Your task to perform on an android device: add a label to a message in the gmail app Image 0: 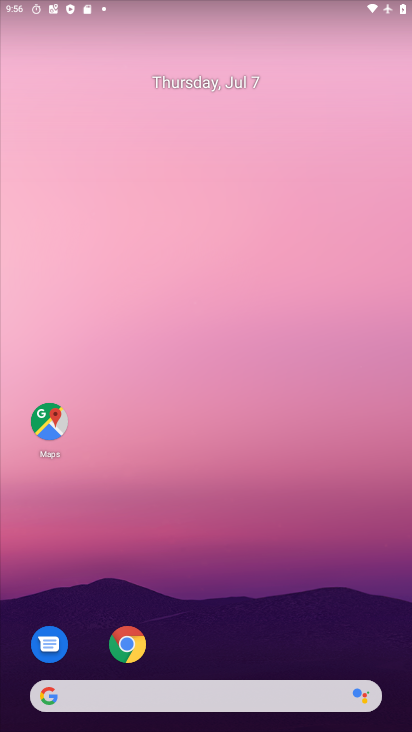
Step 0: drag from (314, 652) to (252, 55)
Your task to perform on an android device: add a label to a message in the gmail app Image 1: 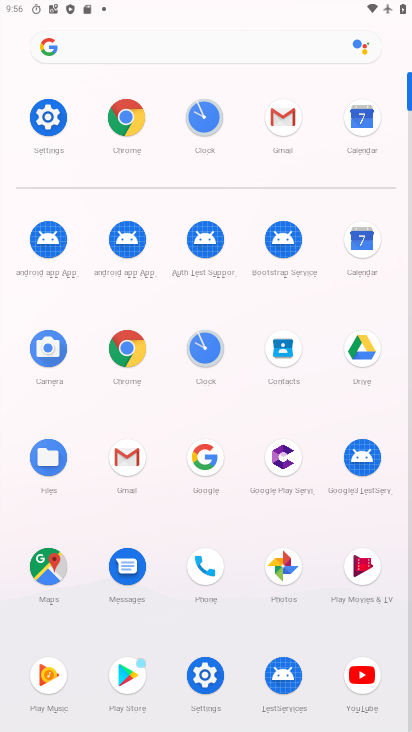
Step 1: click (283, 120)
Your task to perform on an android device: add a label to a message in the gmail app Image 2: 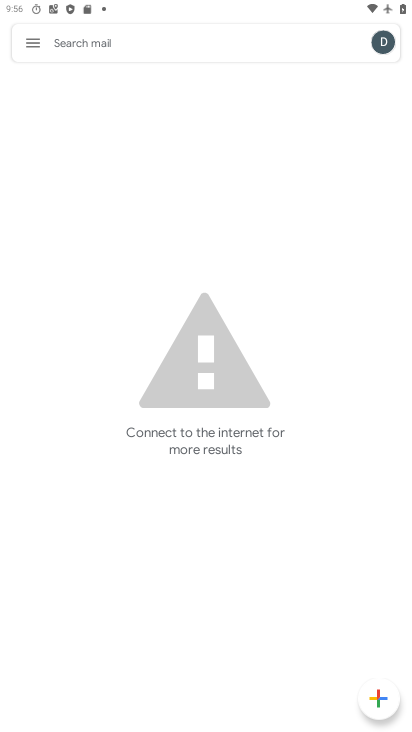
Step 2: task complete